Your task to perform on an android device: Search for sushi restaurants on Maps Image 0: 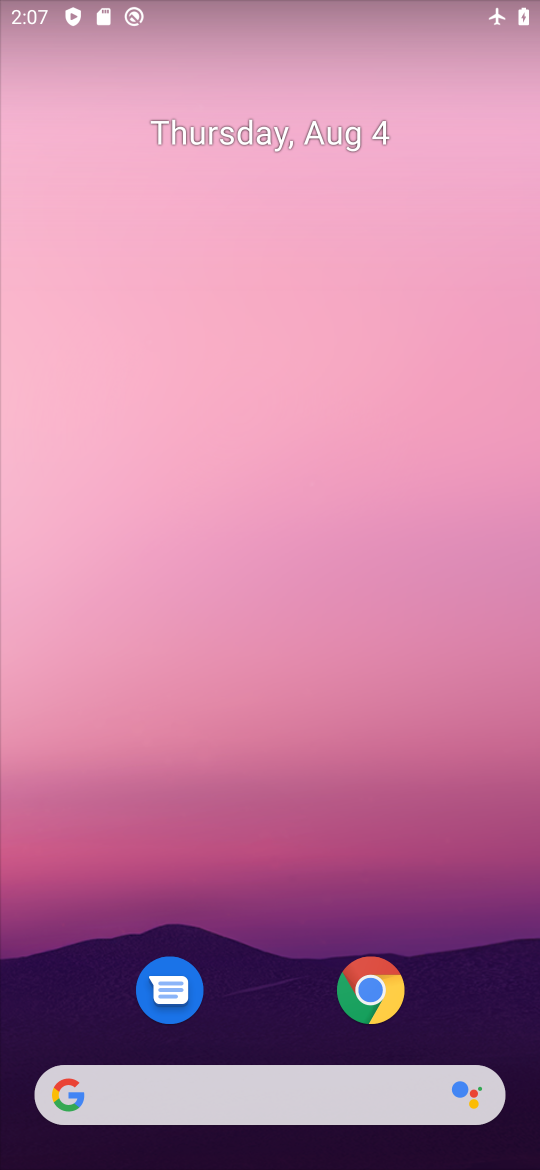
Step 0: drag from (267, 1061) to (210, 269)
Your task to perform on an android device: Search for sushi restaurants on Maps Image 1: 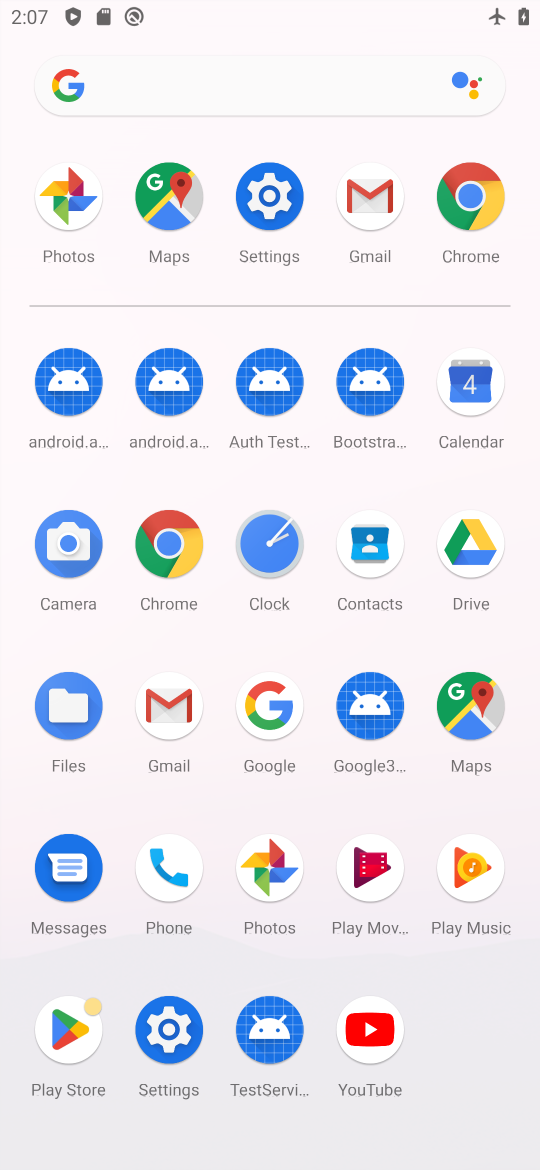
Step 1: click (171, 154)
Your task to perform on an android device: Search for sushi restaurants on Maps Image 2: 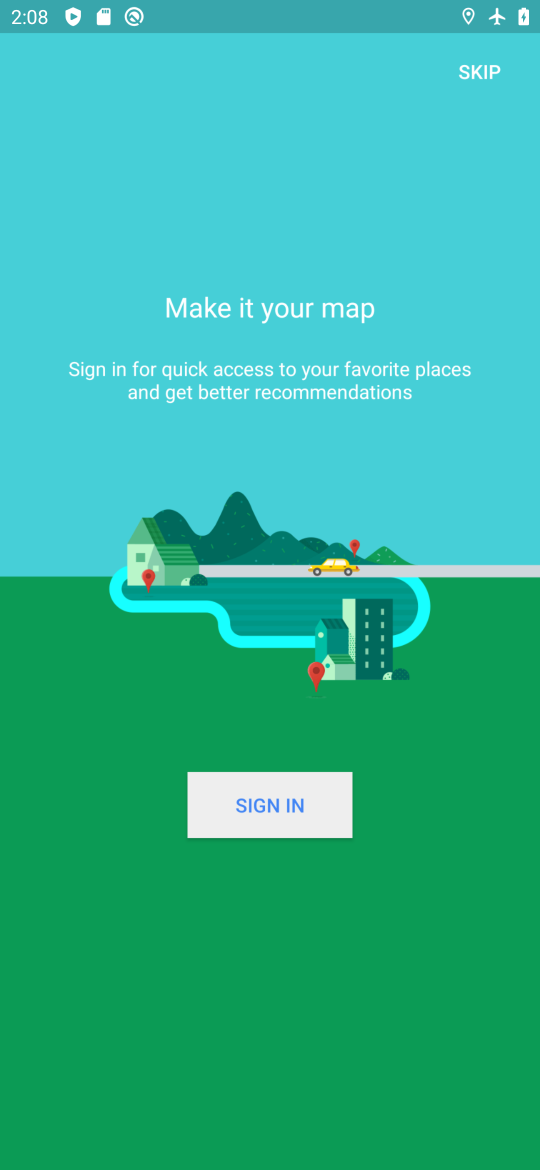
Step 2: task complete